Your task to perform on an android device: open wifi settings Image 0: 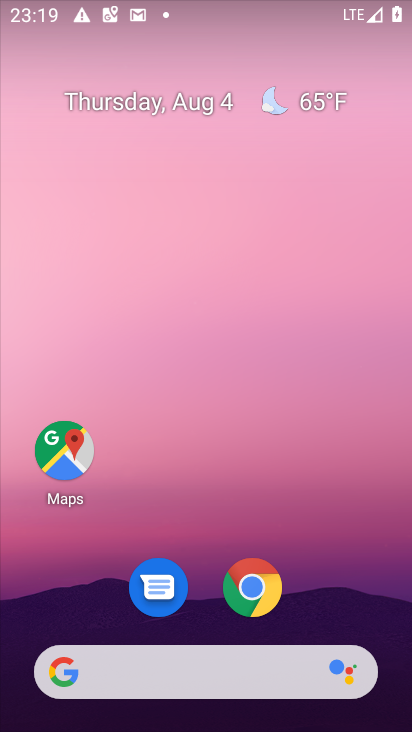
Step 0: drag from (195, 639) to (240, 263)
Your task to perform on an android device: open wifi settings Image 1: 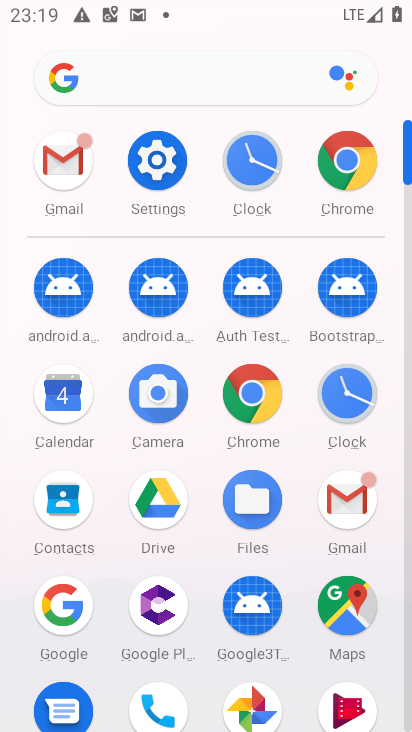
Step 1: click (158, 164)
Your task to perform on an android device: open wifi settings Image 2: 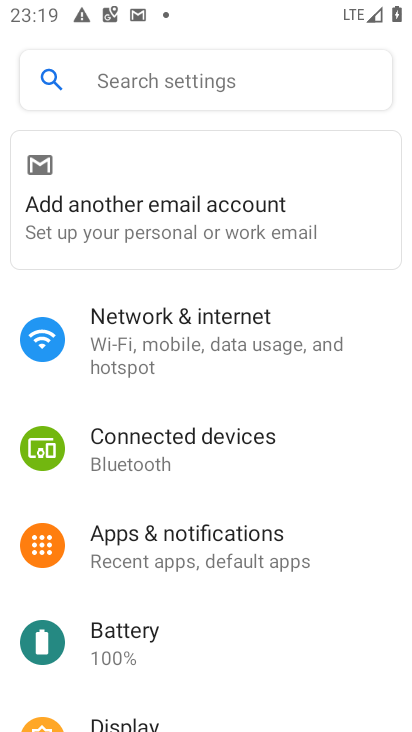
Step 2: click (148, 341)
Your task to perform on an android device: open wifi settings Image 3: 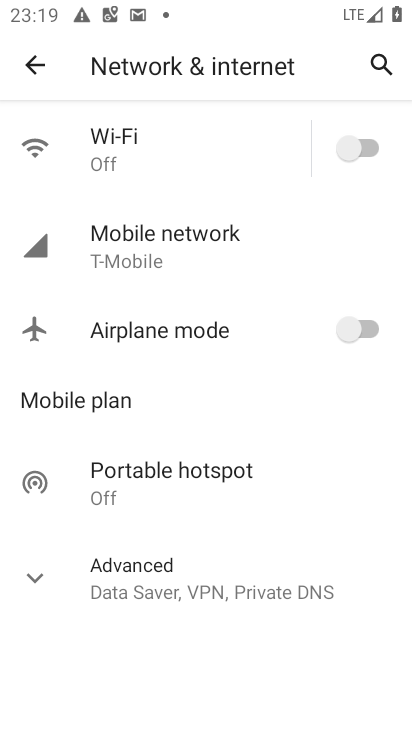
Step 3: click (168, 150)
Your task to perform on an android device: open wifi settings Image 4: 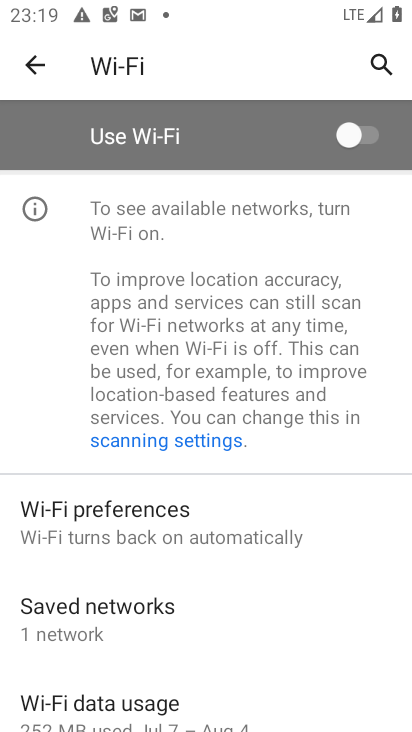
Step 4: drag from (347, 131) to (269, 152)
Your task to perform on an android device: open wifi settings Image 5: 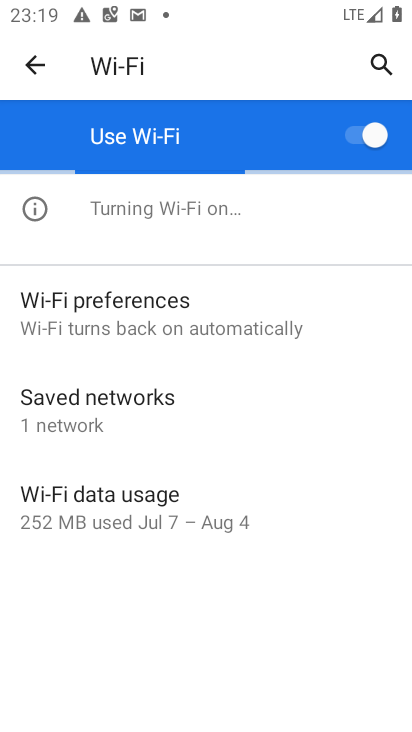
Step 5: click (334, 140)
Your task to perform on an android device: open wifi settings Image 6: 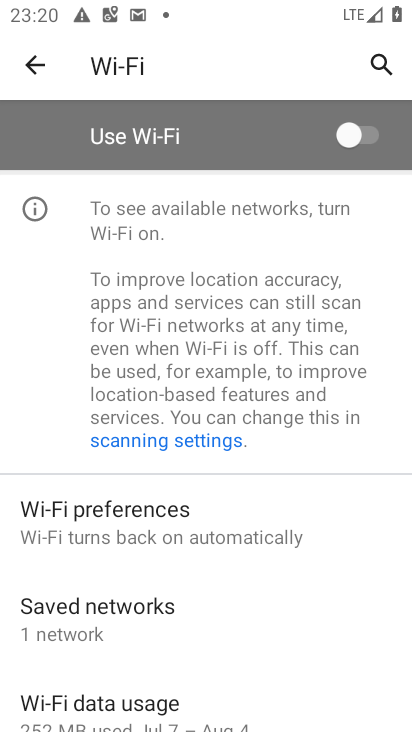
Step 6: task complete